Your task to perform on an android device: Add "razer huntsman" to the cart on newegg Image 0: 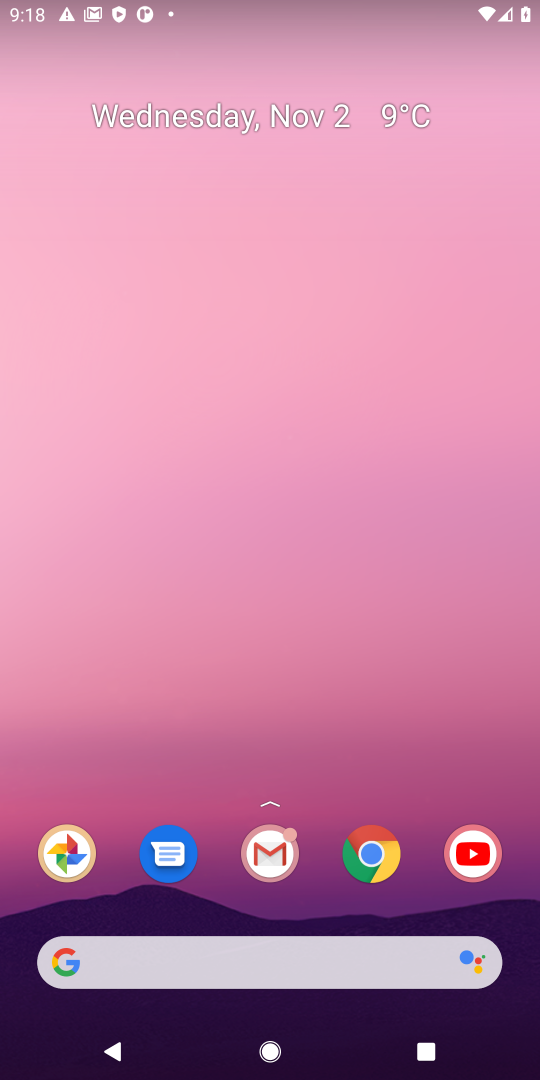
Step 0: press home button
Your task to perform on an android device: Add "razer huntsman" to the cart on newegg Image 1: 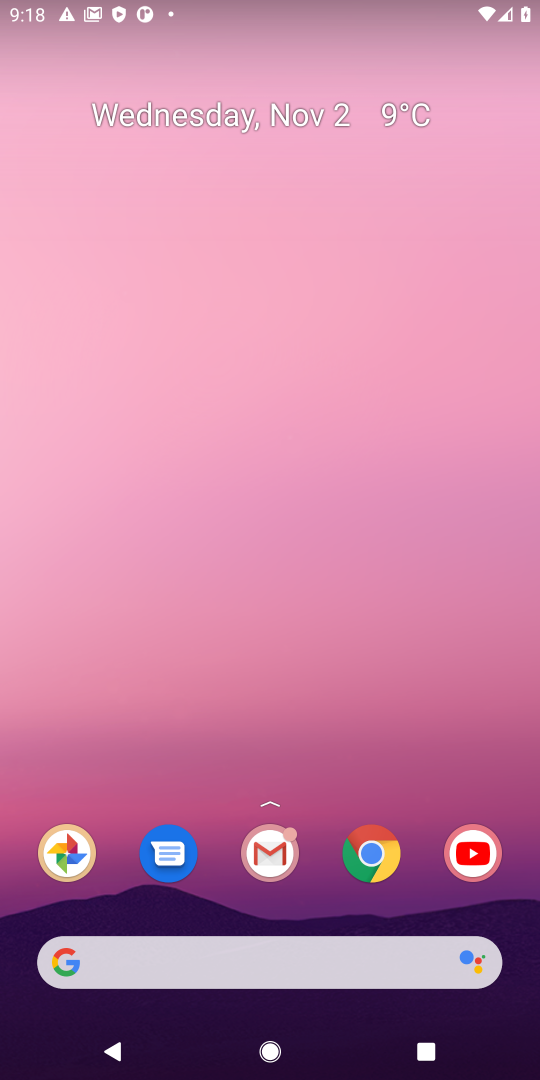
Step 1: press home button
Your task to perform on an android device: Add "razer huntsman" to the cart on newegg Image 2: 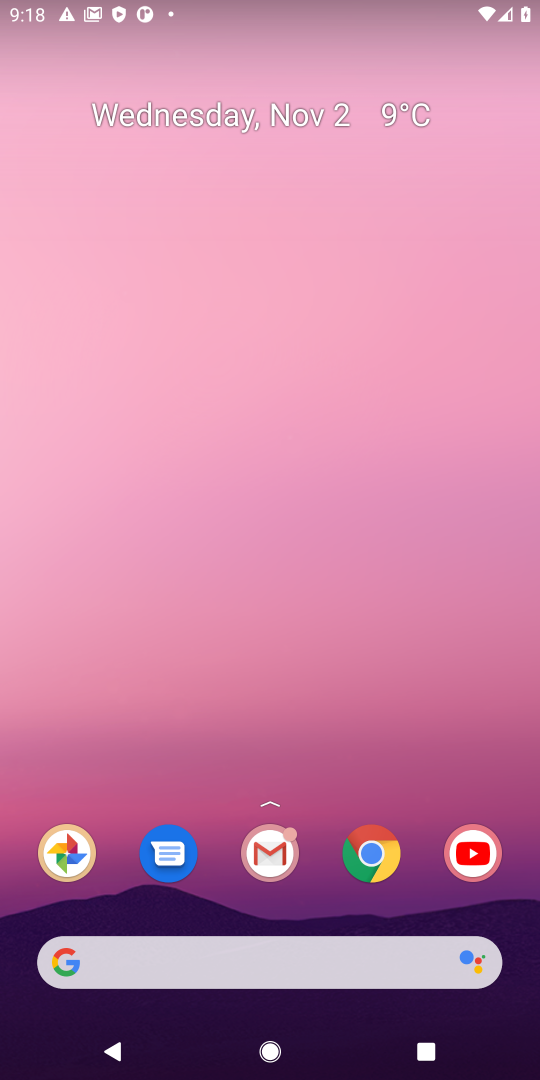
Step 2: click (358, 857)
Your task to perform on an android device: Add "razer huntsman" to the cart on newegg Image 3: 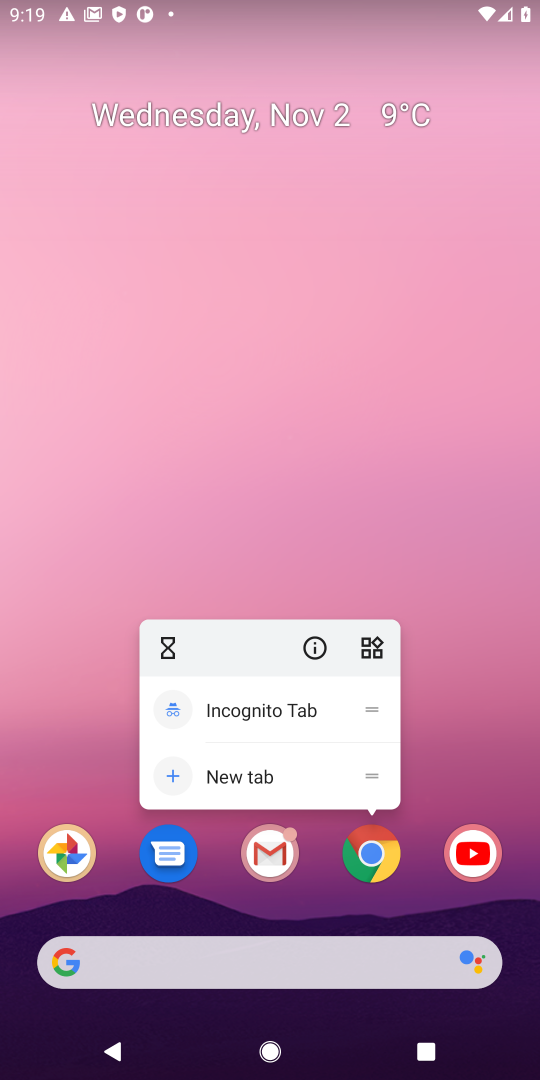
Step 3: click (371, 858)
Your task to perform on an android device: Add "razer huntsman" to the cart on newegg Image 4: 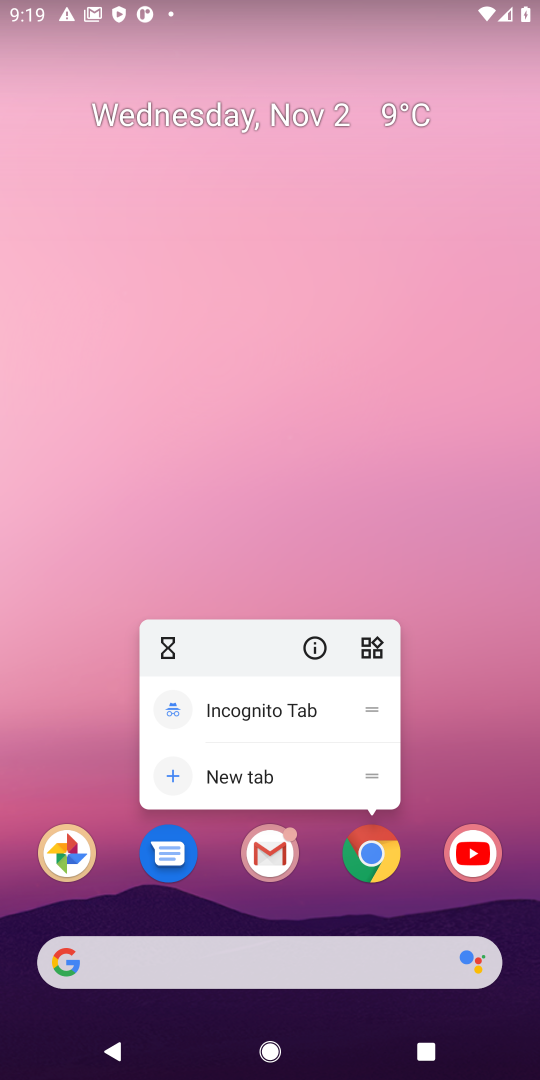
Step 4: click (379, 850)
Your task to perform on an android device: Add "razer huntsman" to the cart on newegg Image 5: 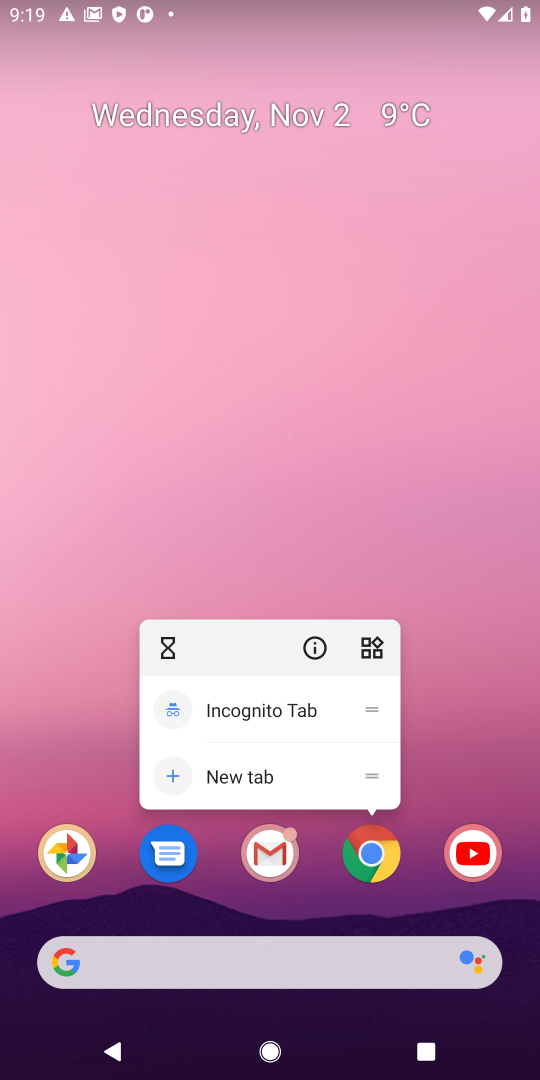
Step 5: click (372, 859)
Your task to perform on an android device: Add "razer huntsman" to the cart on newegg Image 6: 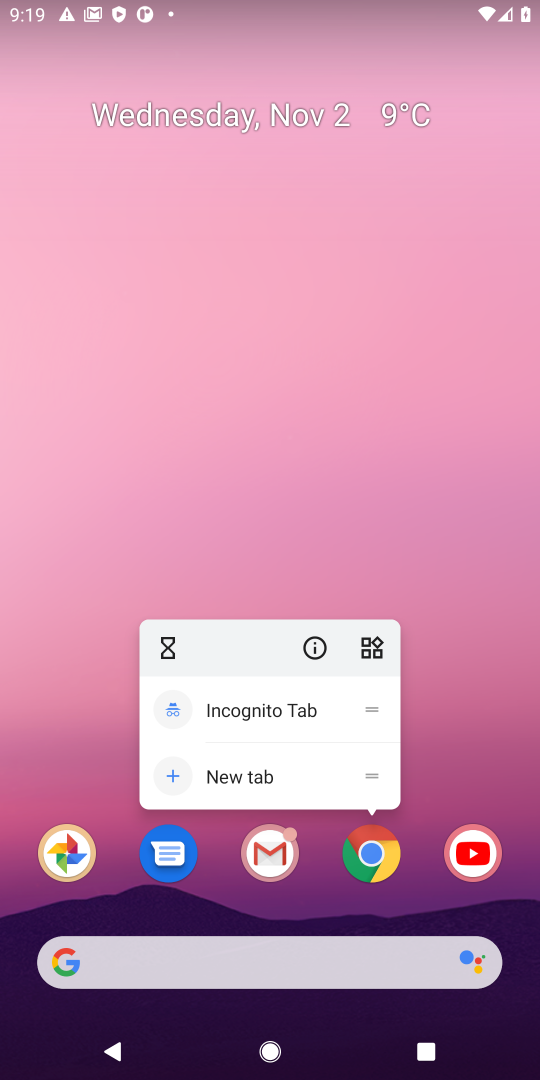
Step 6: click (372, 861)
Your task to perform on an android device: Add "razer huntsman" to the cart on newegg Image 7: 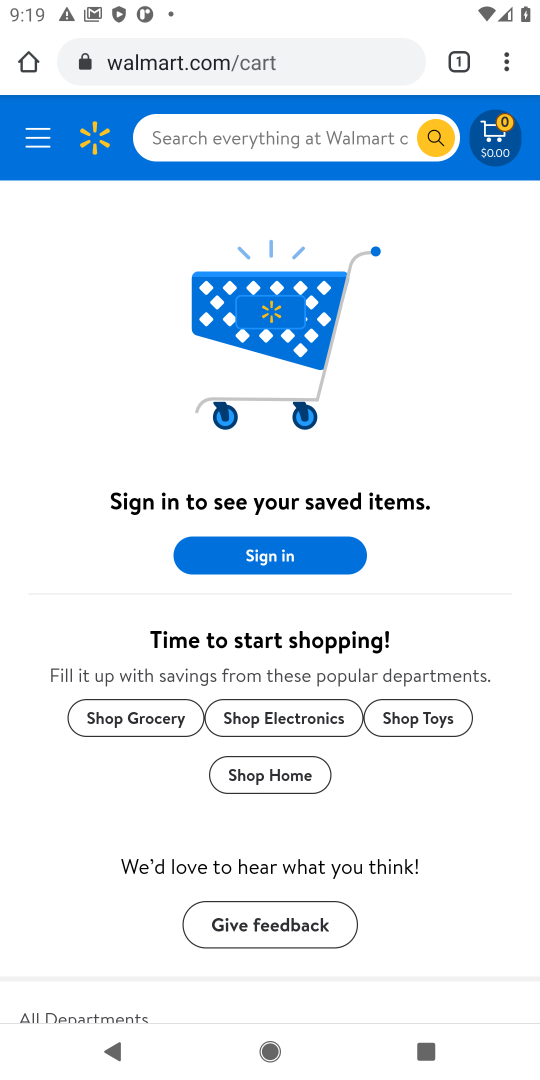
Step 7: click (293, 50)
Your task to perform on an android device: Add "razer huntsman" to the cart on newegg Image 8: 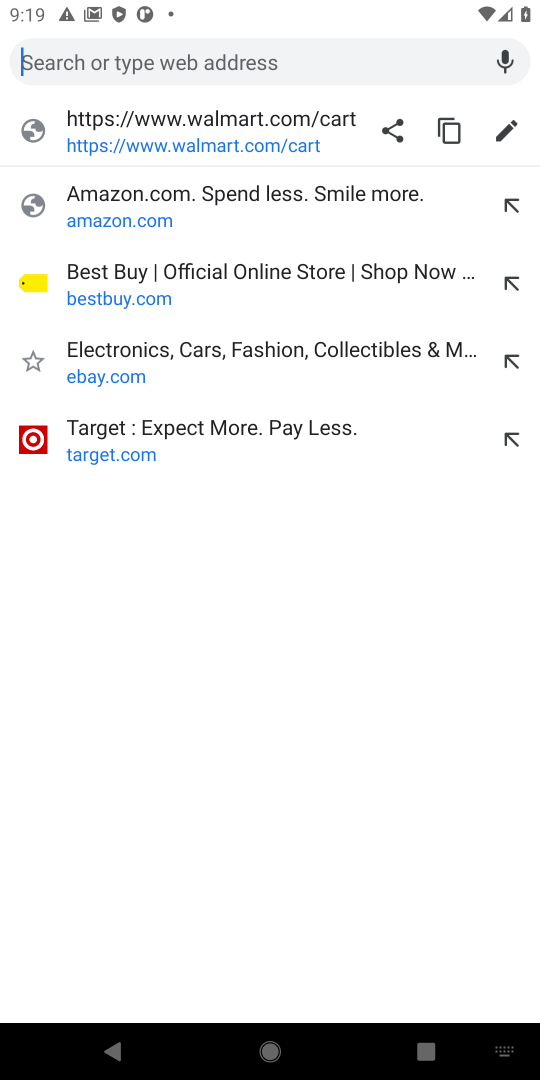
Step 8: type "newegg"
Your task to perform on an android device: Add "razer huntsman" to the cart on newegg Image 9: 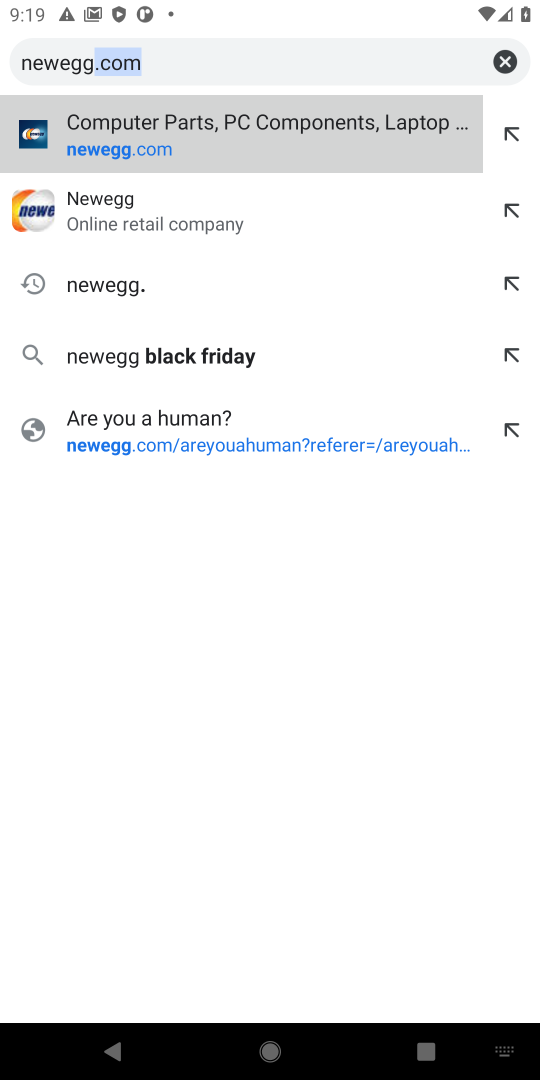
Step 9: press enter
Your task to perform on an android device: Add "razer huntsman" to the cart on newegg Image 10: 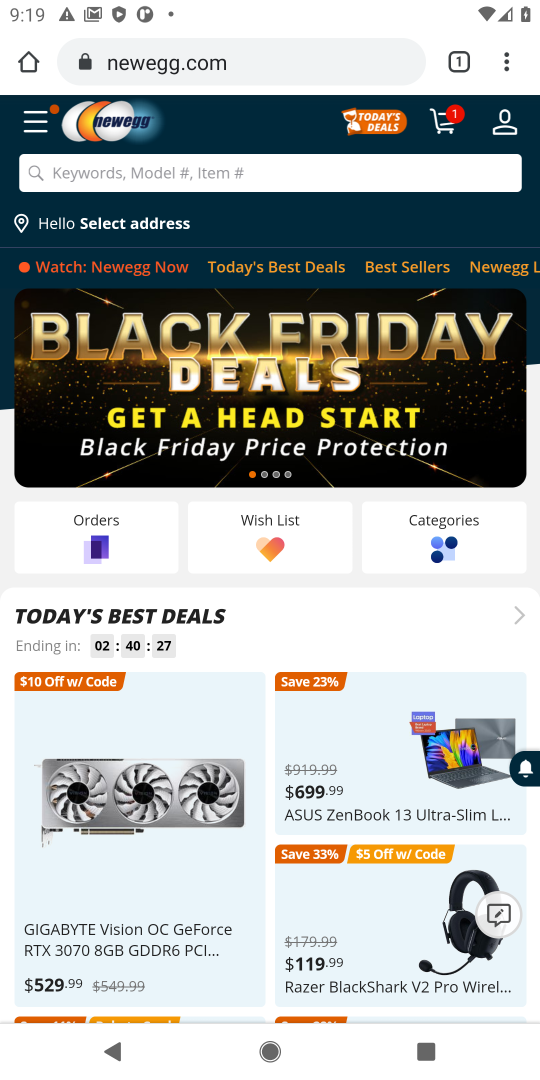
Step 10: click (264, 174)
Your task to perform on an android device: Add "razer huntsman" to the cart on newegg Image 11: 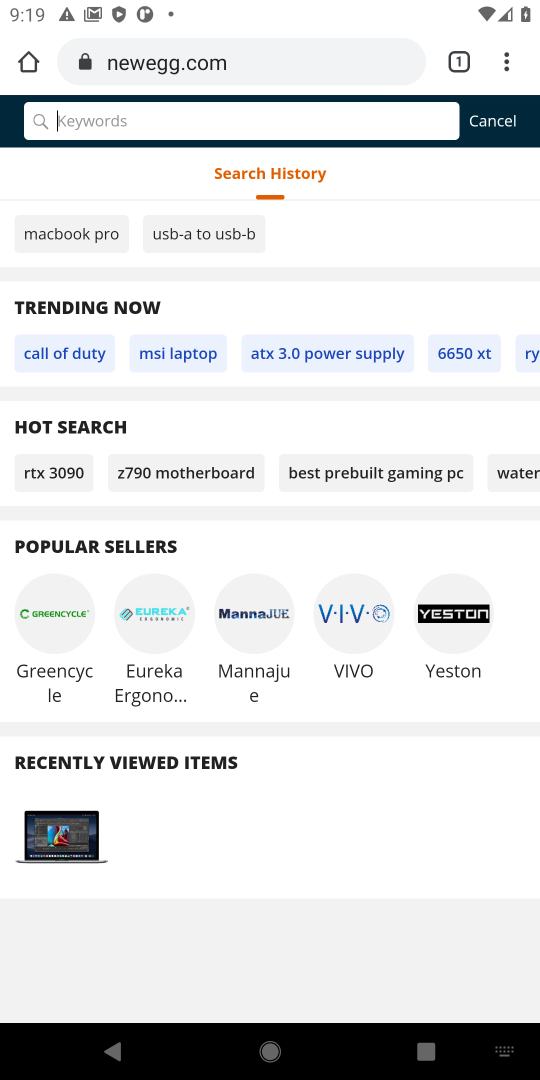
Step 11: type "razer huntsman"
Your task to perform on an android device: Add "razer huntsman" to the cart on newegg Image 12: 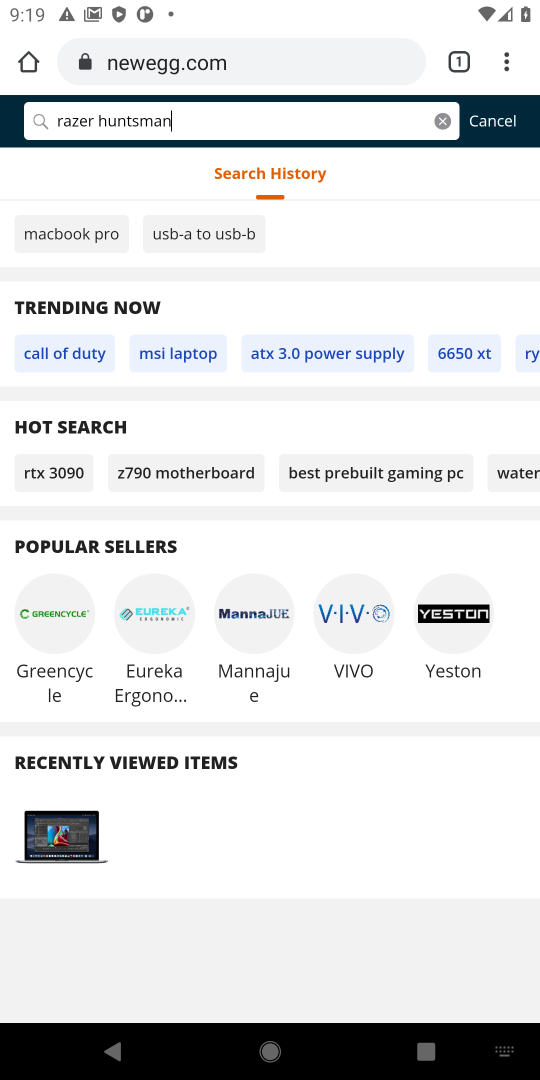
Step 12: press enter
Your task to perform on an android device: Add "razer huntsman" to the cart on newegg Image 13: 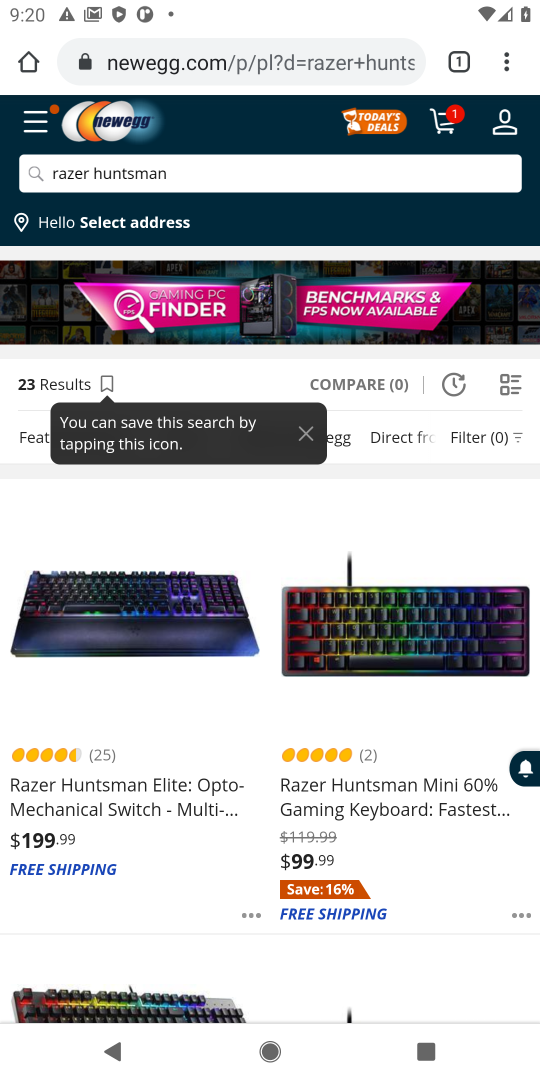
Step 13: click (122, 804)
Your task to perform on an android device: Add "razer huntsman" to the cart on newegg Image 14: 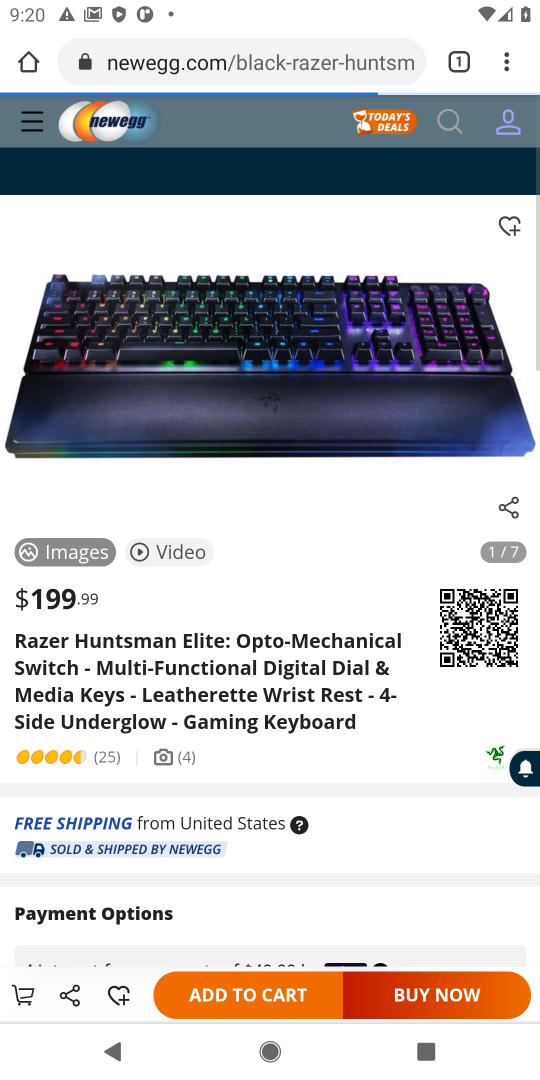
Step 14: click (62, 773)
Your task to perform on an android device: Add "razer huntsman" to the cart on newegg Image 15: 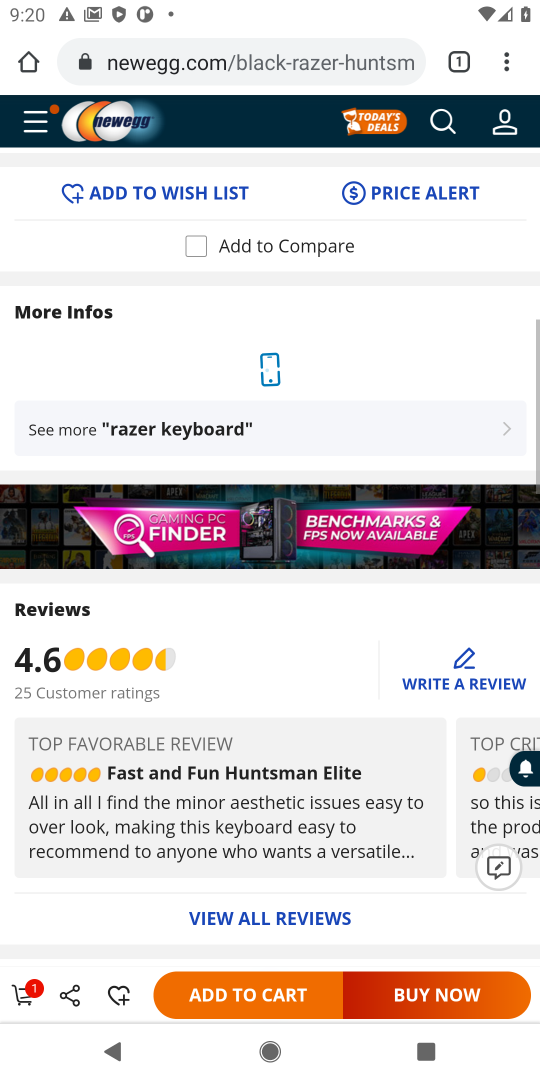
Step 15: click (269, 1004)
Your task to perform on an android device: Add "razer huntsman" to the cart on newegg Image 16: 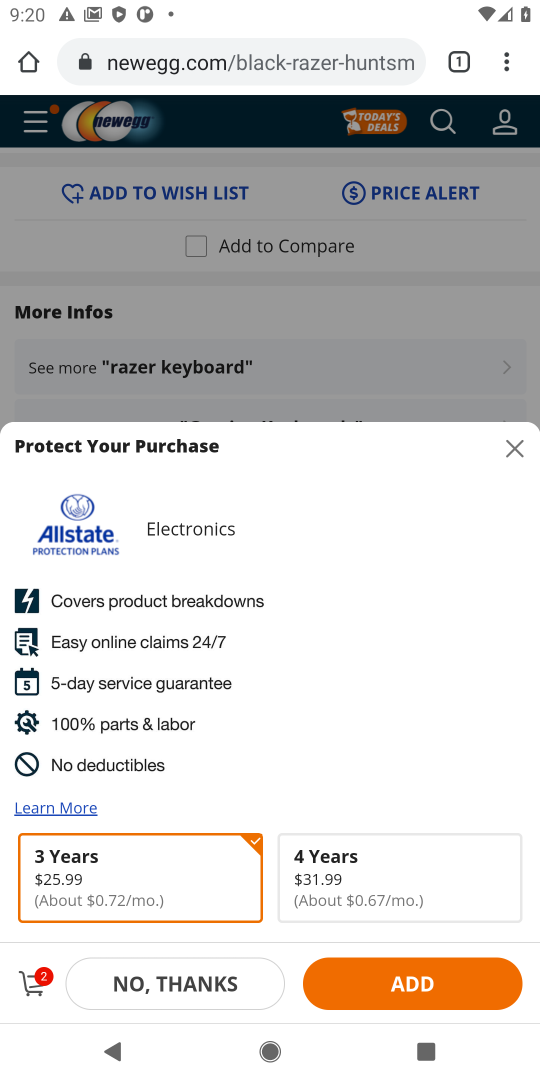
Step 16: click (233, 975)
Your task to perform on an android device: Add "razer huntsman" to the cart on newegg Image 17: 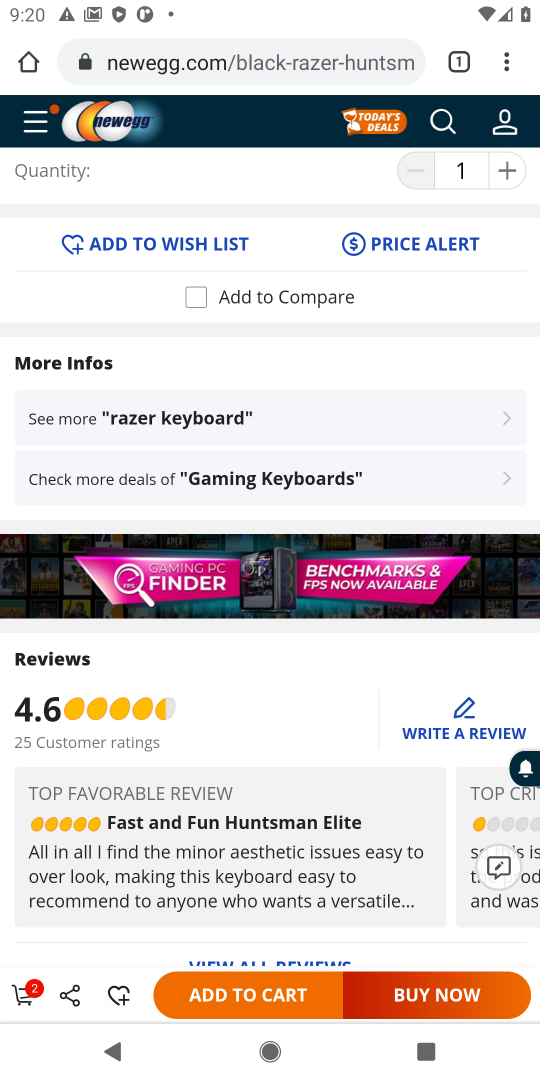
Step 17: task complete